Your task to perform on an android device: allow cookies in the chrome app Image 0: 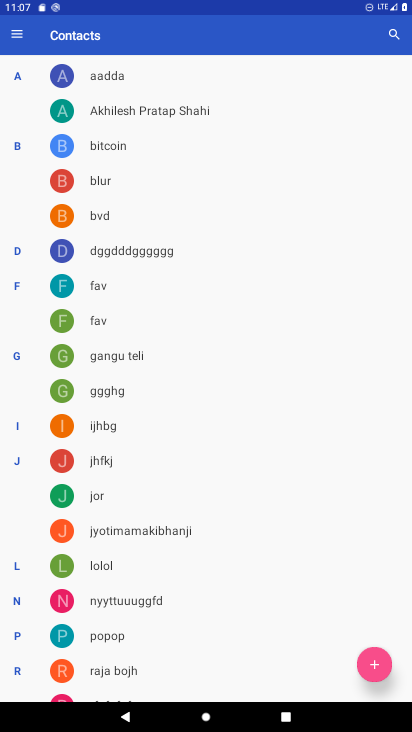
Step 0: press home button
Your task to perform on an android device: allow cookies in the chrome app Image 1: 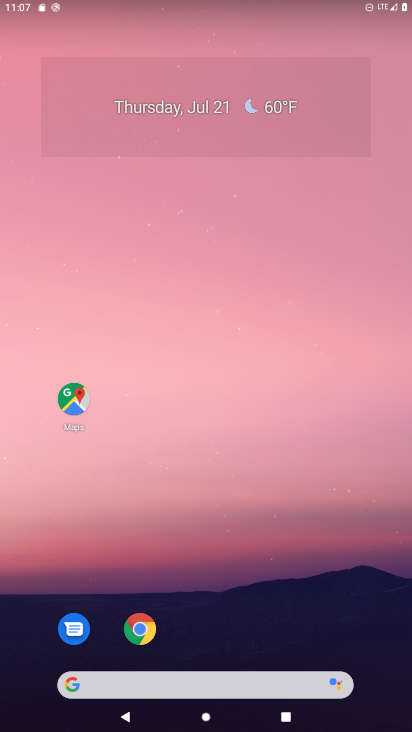
Step 1: click (129, 627)
Your task to perform on an android device: allow cookies in the chrome app Image 2: 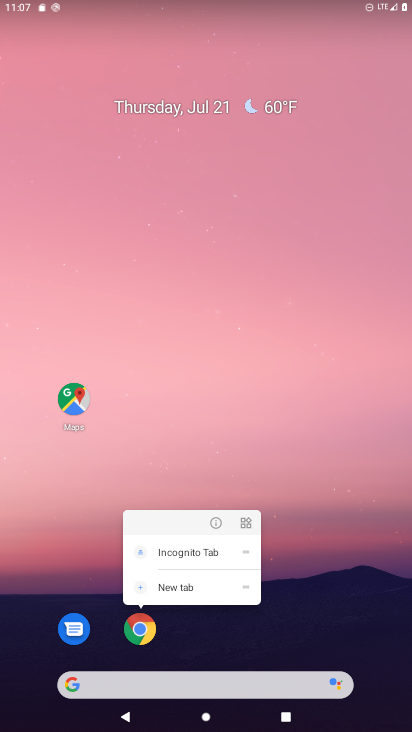
Step 2: click (137, 625)
Your task to perform on an android device: allow cookies in the chrome app Image 3: 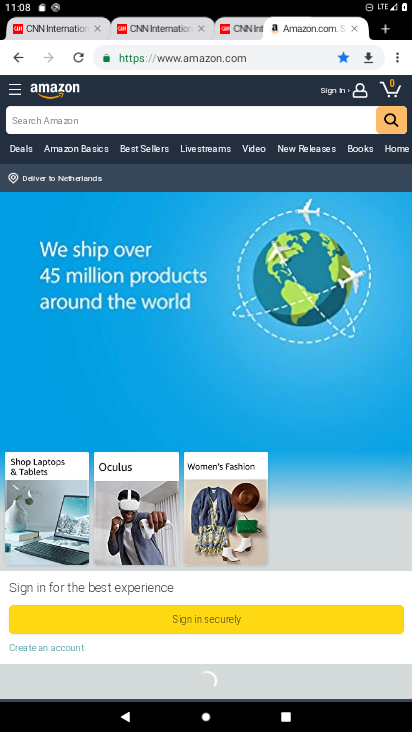
Step 3: drag from (398, 56) to (279, 409)
Your task to perform on an android device: allow cookies in the chrome app Image 4: 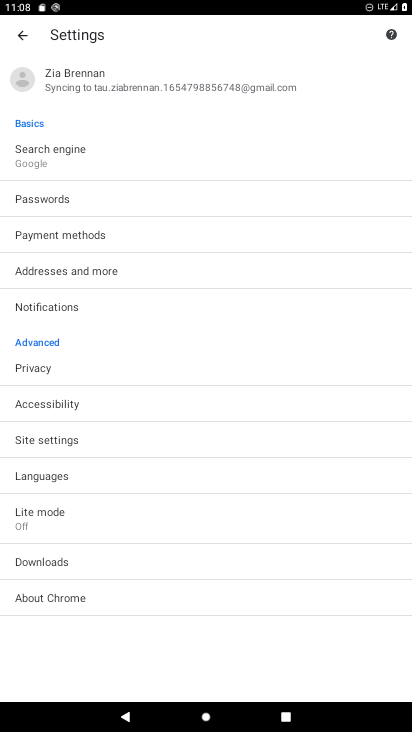
Step 4: click (57, 442)
Your task to perform on an android device: allow cookies in the chrome app Image 5: 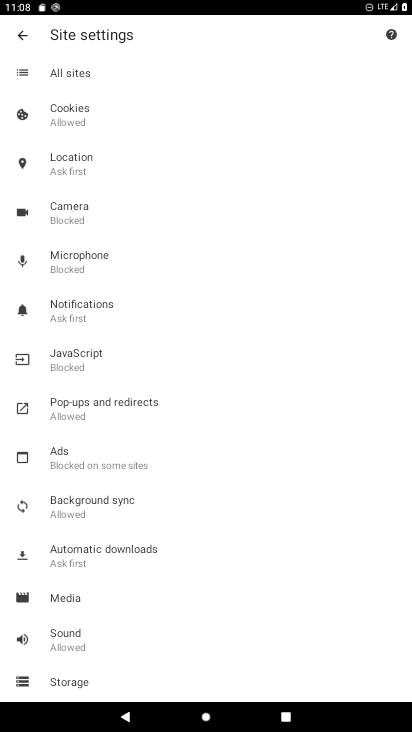
Step 5: click (84, 113)
Your task to perform on an android device: allow cookies in the chrome app Image 6: 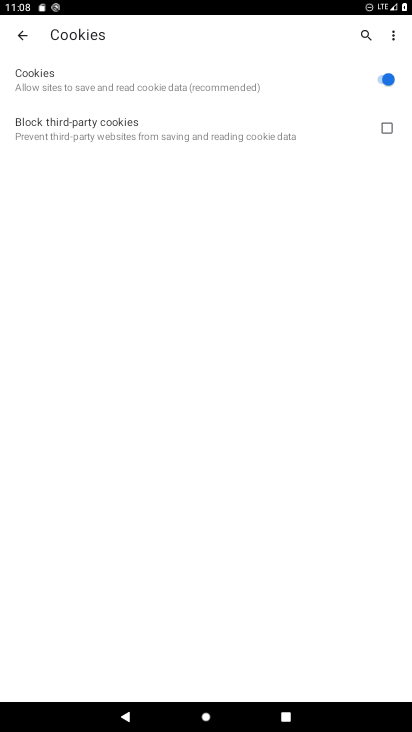
Step 6: task complete